Your task to perform on an android device: Is it going to rain today? Image 0: 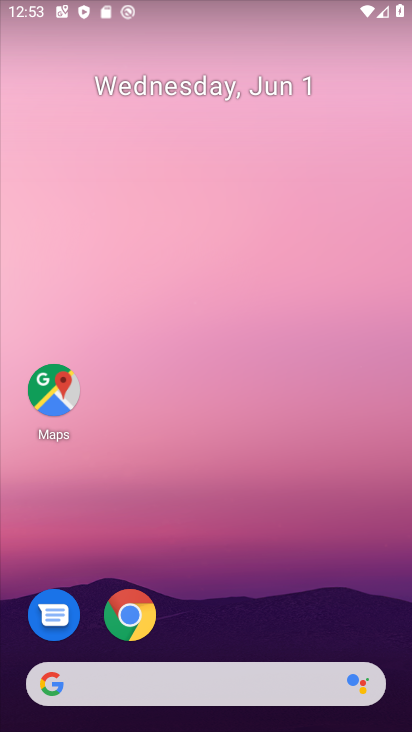
Step 0: task complete